Your task to perform on an android device: toggle pop-ups in chrome Image 0: 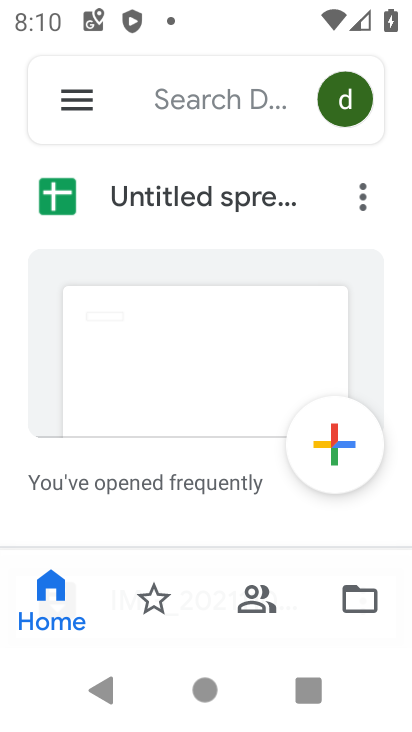
Step 0: press home button
Your task to perform on an android device: toggle pop-ups in chrome Image 1: 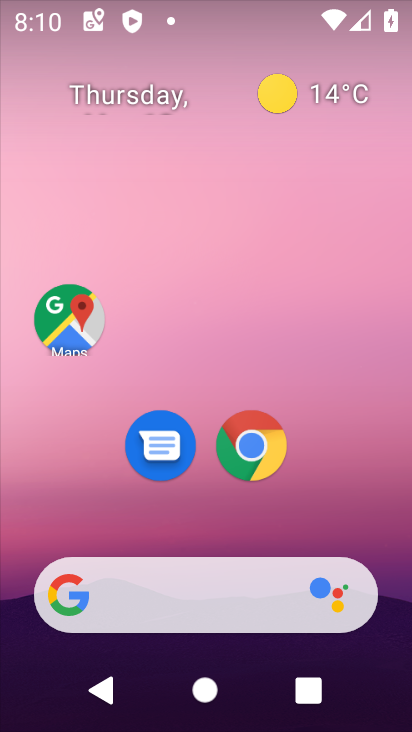
Step 1: click (248, 452)
Your task to perform on an android device: toggle pop-ups in chrome Image 2: 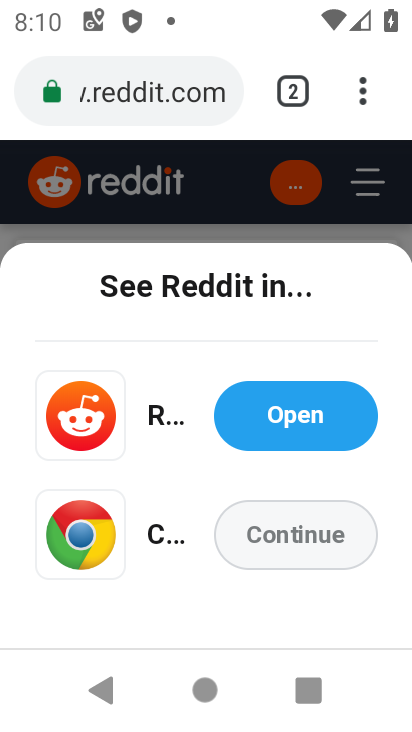
Step 2: click (362, 99)
Your task to perform on an android device: toggle pop-ups in chrome Image 3: 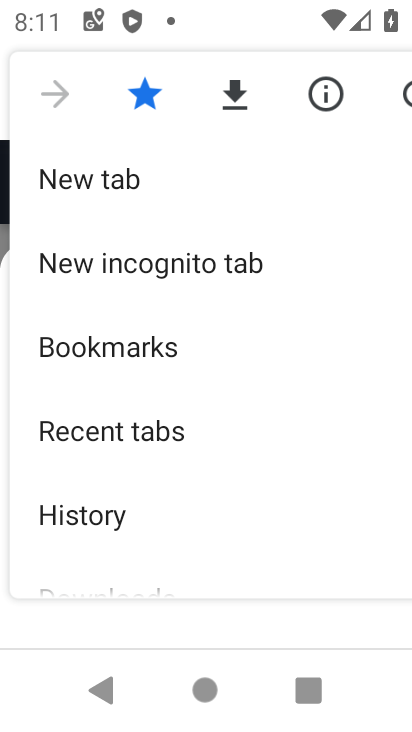
Step 3: drag from (126, 551) to (126, 241)
Your task to perform on an android device: toggle pop-ups in chrome Image 4: 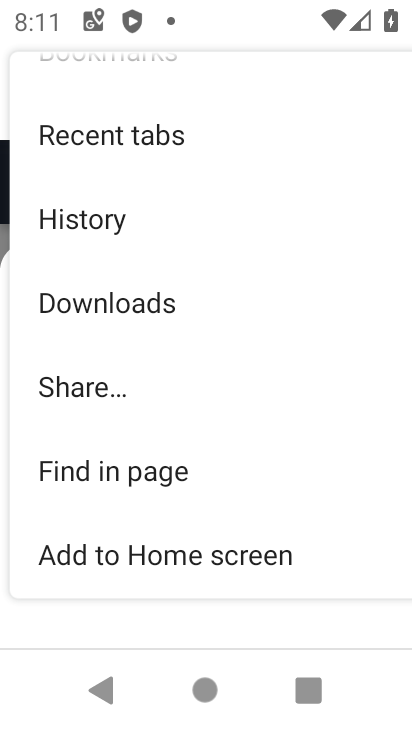
Step 4: drag from (145, 536) to (161, 235)
Your task to perform on an android device: toggle pop-ups in chrome Image 5: 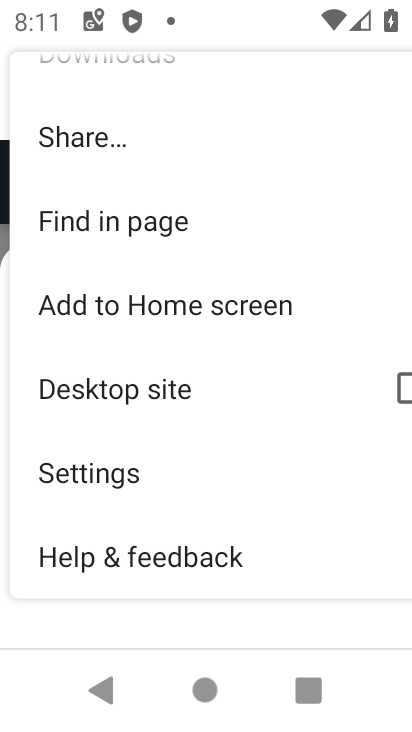
Step 5: click (128, 470)
Your task to perform on an android device: toggle pop-ups in chrome Image 6: 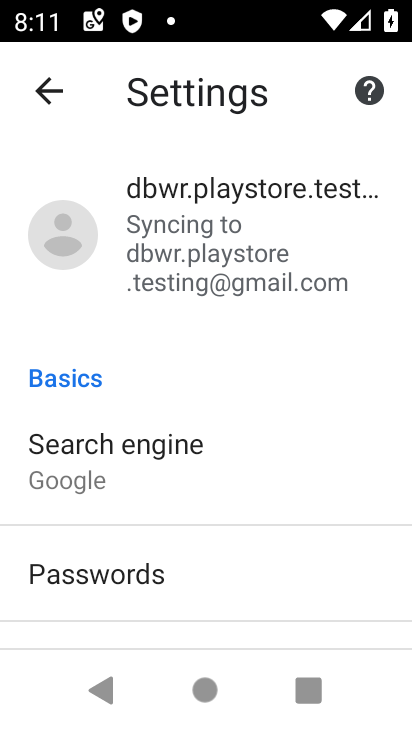
Step 6: drag from (106, 624) to (115, 332)
Your task to perform on an android device: toggle pop-ups in chrome Image 7: 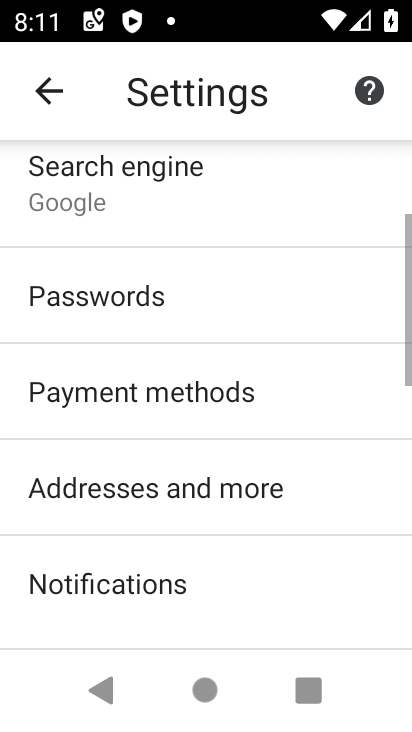
Step 7: drag from (173, 613) to (185, 289)
Your task to perform on an android device: toggle pop-ups in chrome Image 8: 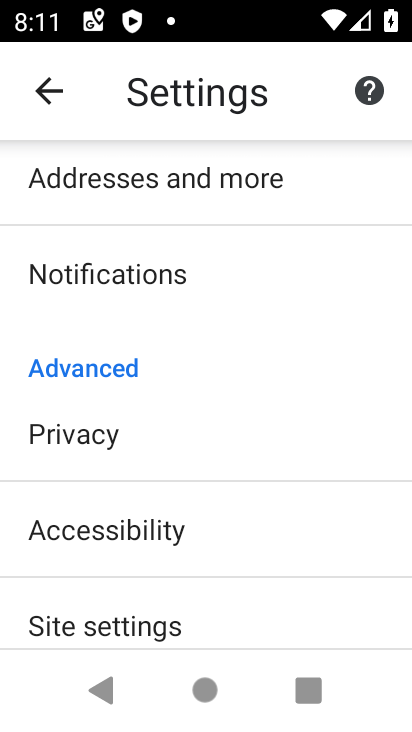
Step 8: click (143, 620)
Your task to perform on an android device: toggle pop-ups in chrome Image 9: 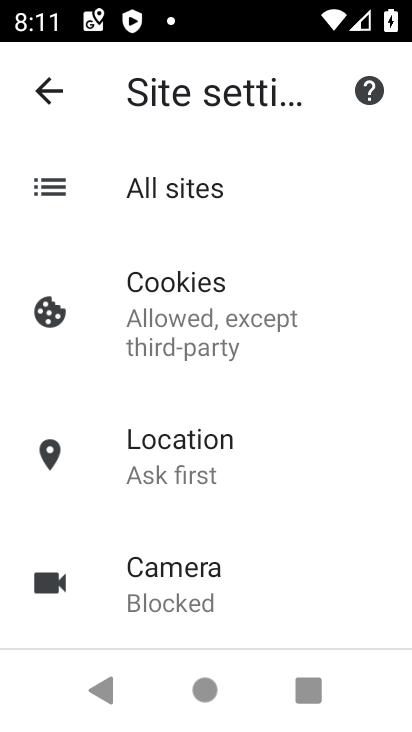
Step 9: drag from (169, 617) to (176, 277)
Your task to perform on an android device: toggle pop-ups in chrome Image 10: 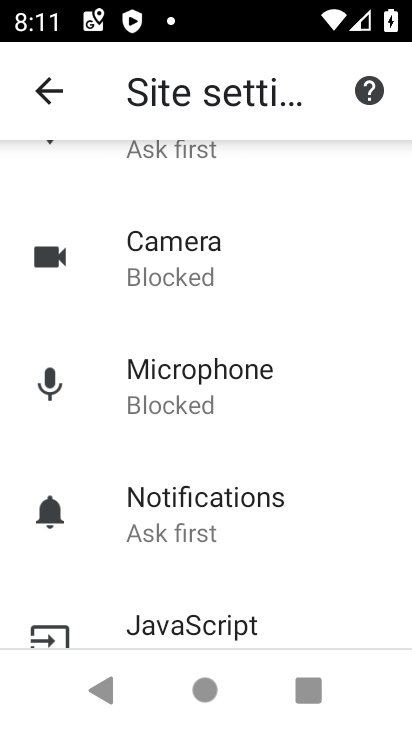
Step 10: drag from (222, 610) to (228, 262)
Your task to perform on an android device: toggle pop-ups in chrome Image 11: 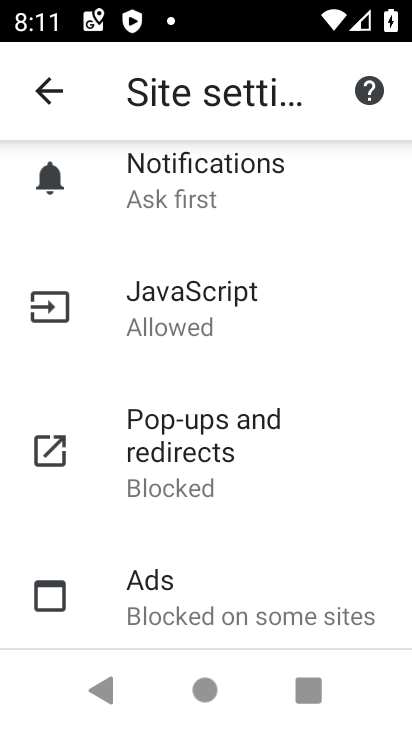
Step 11: click (220, 434)
Your task to perform on an android device: toggle pop-ups in chrome Image 12: 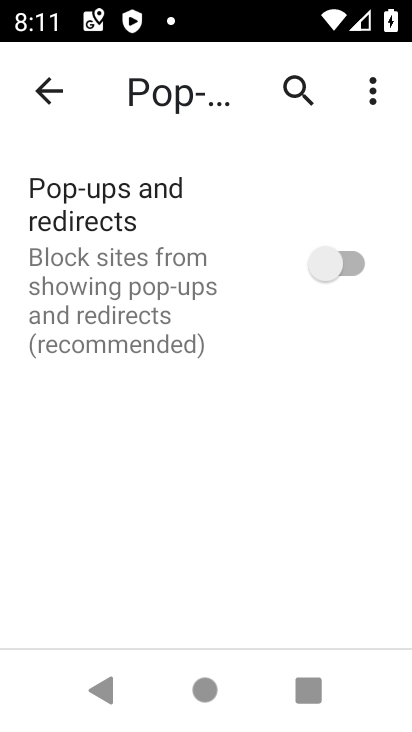
Step 12: click (360, 264)
Your task to perform on an android device: toggle pop-ups in chrome Image 13: 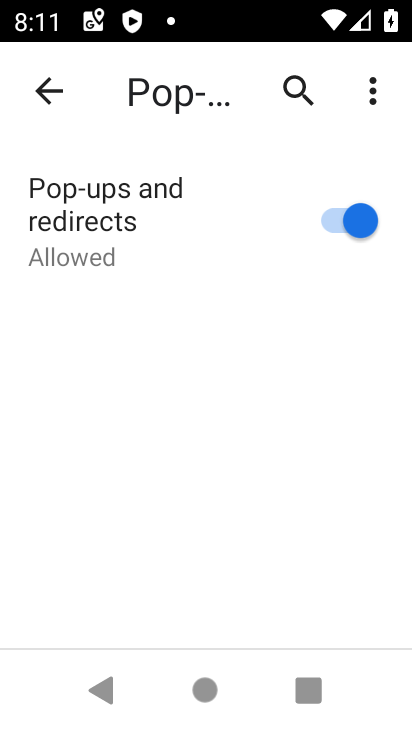
Step 13: task complete